Your task to perform on an android device: What's the weather today? Image 0: 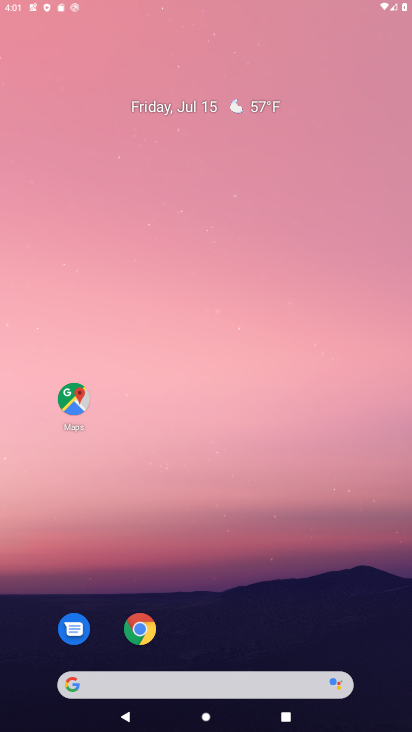
Step 0: press home button
Your task to perform on an android device: What's the weather today? Image 1: 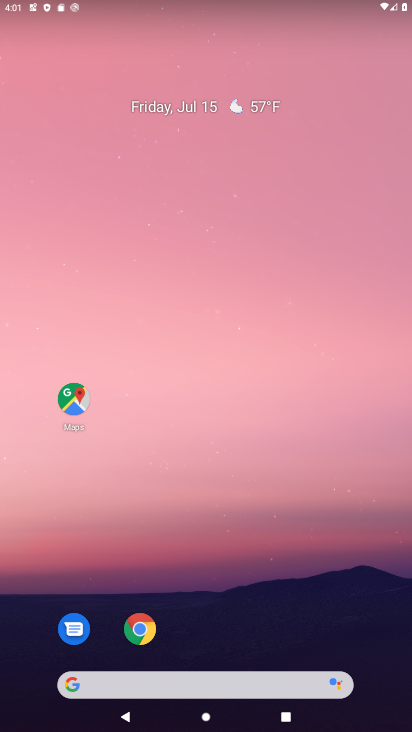
Step 1: click (68, 687)
Your task to perform on an android device: What's the weather today? Image 2: 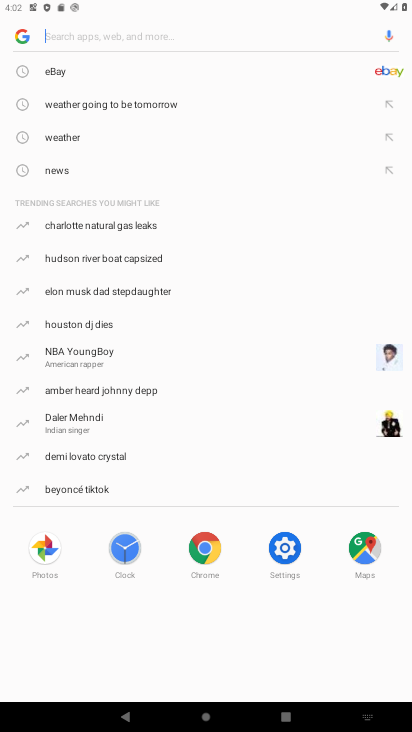
Step 2: type "What's the weather today?"
Your task to perform on an android device: What's the weather today? Image 3: 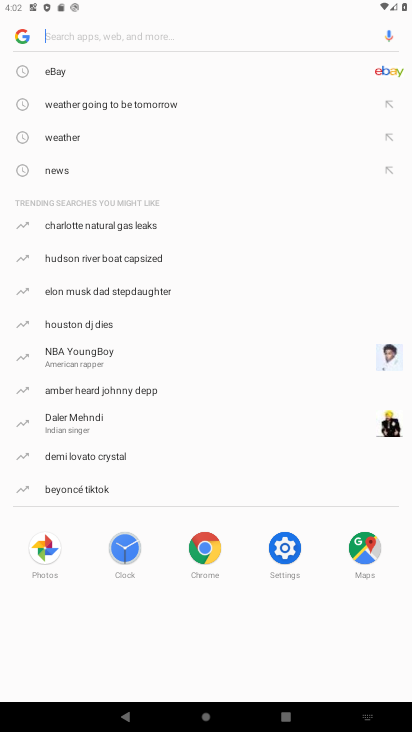
Step 3: click (73, 36)
Your task to perform on an android device: What's the weather today? Image 4: 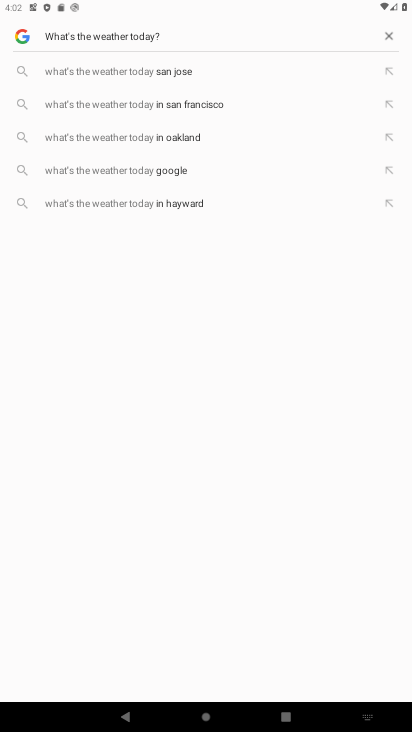
Step 4: press enter
Your task to perform on an android device: What's the weather today? Image 5: 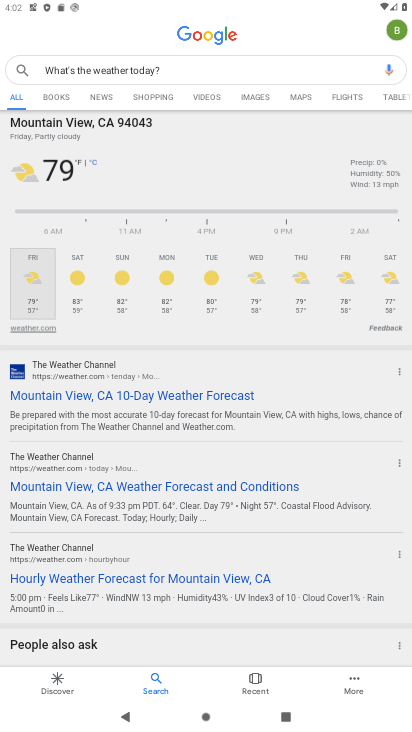
Step 5: task complete